Your task to perform on an android device: turn smart compose on in the gmail app Image 0: 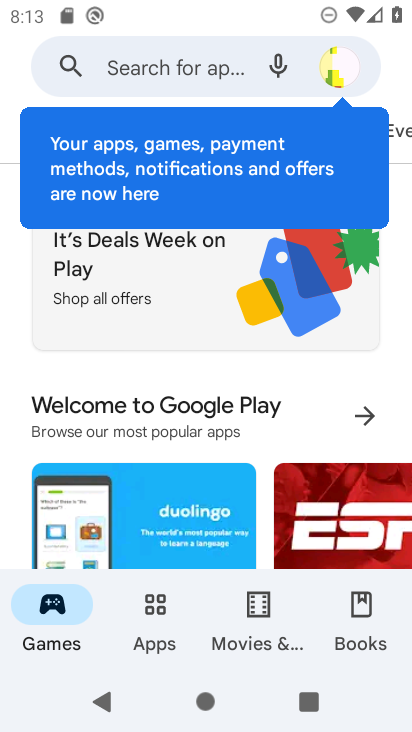
Step 0: press home button
Your task to perform on an android device: turn smart compose on in the gmail app Image 1: 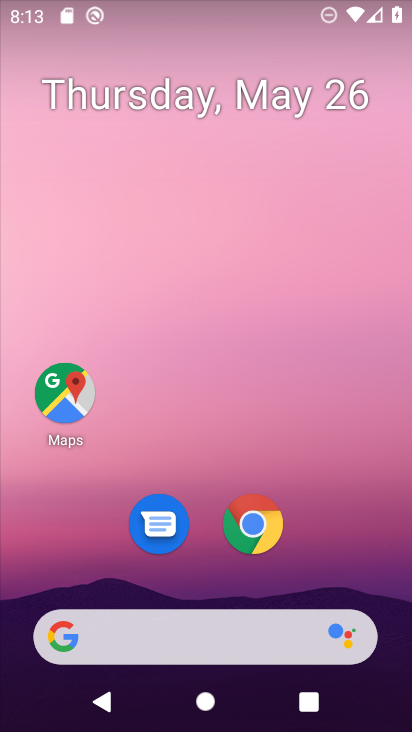
Step 1: drag from (328, 444) to (316, 19)
Your task to perform on an android device: turn smart compose on in the gmail app Image 2: 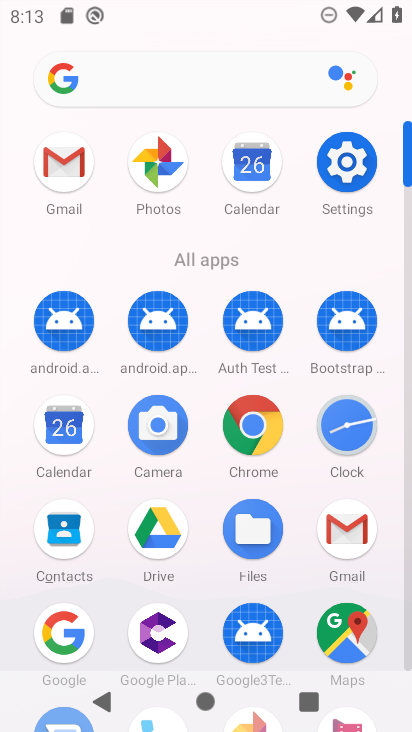
Step 2: click (67, 146)
Your task to perform on an android device: turn smart compose on in the gmail app Image 3: 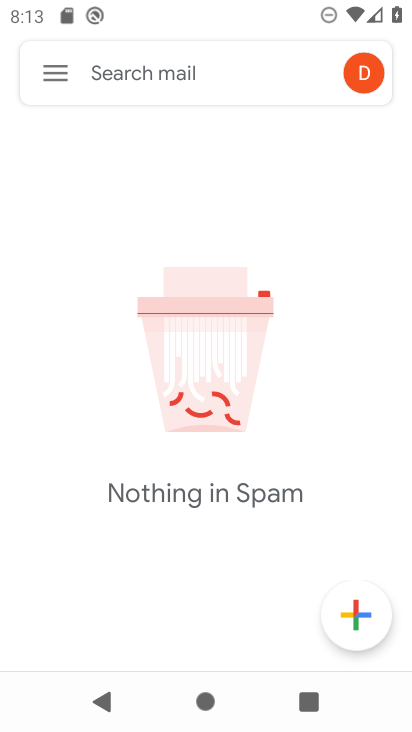
Step 3: click (47, 64)
Your task to perform on an android device: turn smart compose on in the gmail app Image 4: 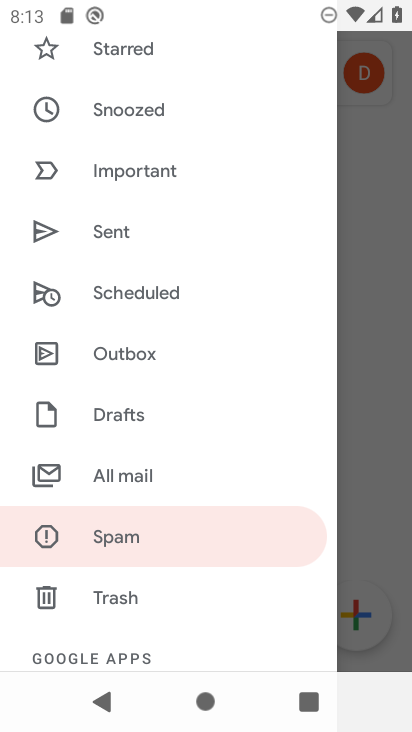
Step 4: drag from (202, 473) to (212, 193)
Your task to perform on an android device: turn smart compose on in the gmail app Image 5: 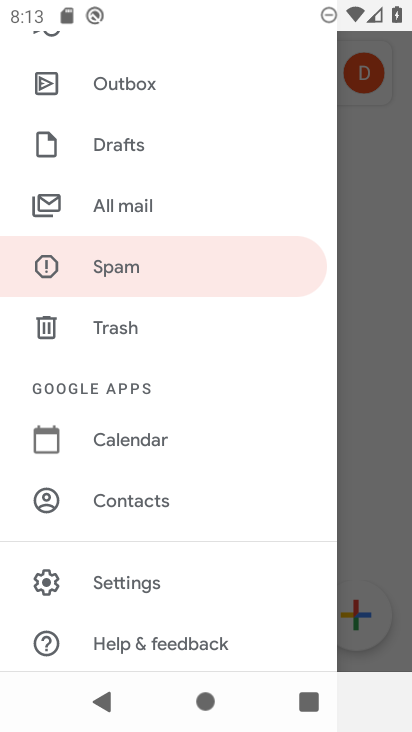
Step 5: click (146, 569)
Your task to perform on an android device: turn smart compose on in the gmail app Image 6: 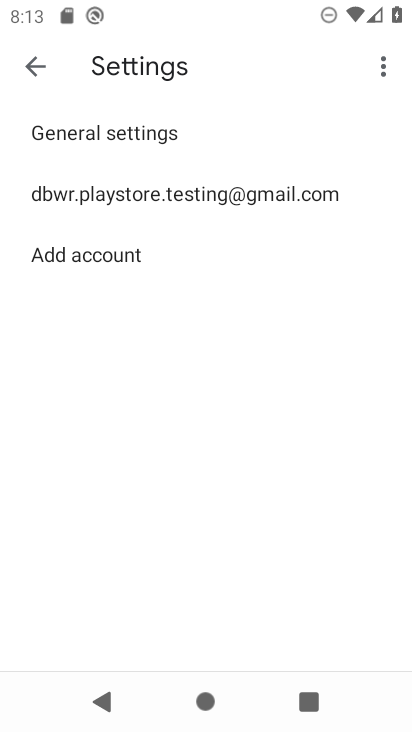
Step 6: click (274, 193)
Your task to perform on an android device: turn smart compose on in the gmail app Image 7: 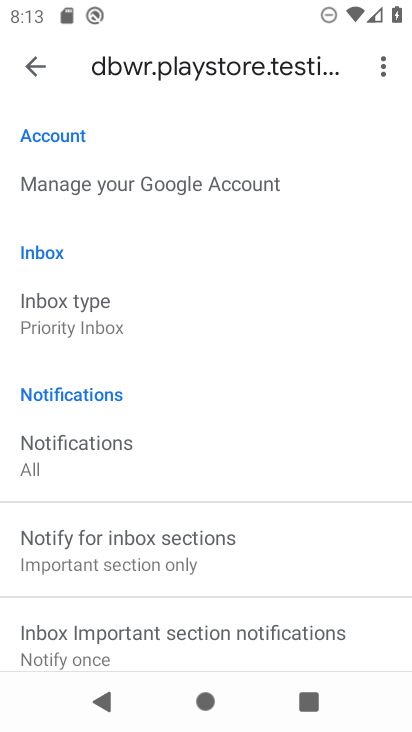
Step 7: task complete